Your task to perform on an android device: turn on notifications settings in the gmail app Image 0: 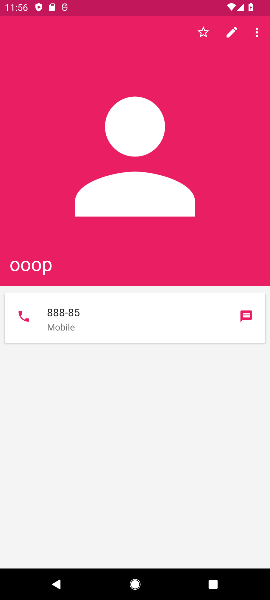
Step 0: task complete